Your task to perform on an android device: install app "Google Play services" Image 0: 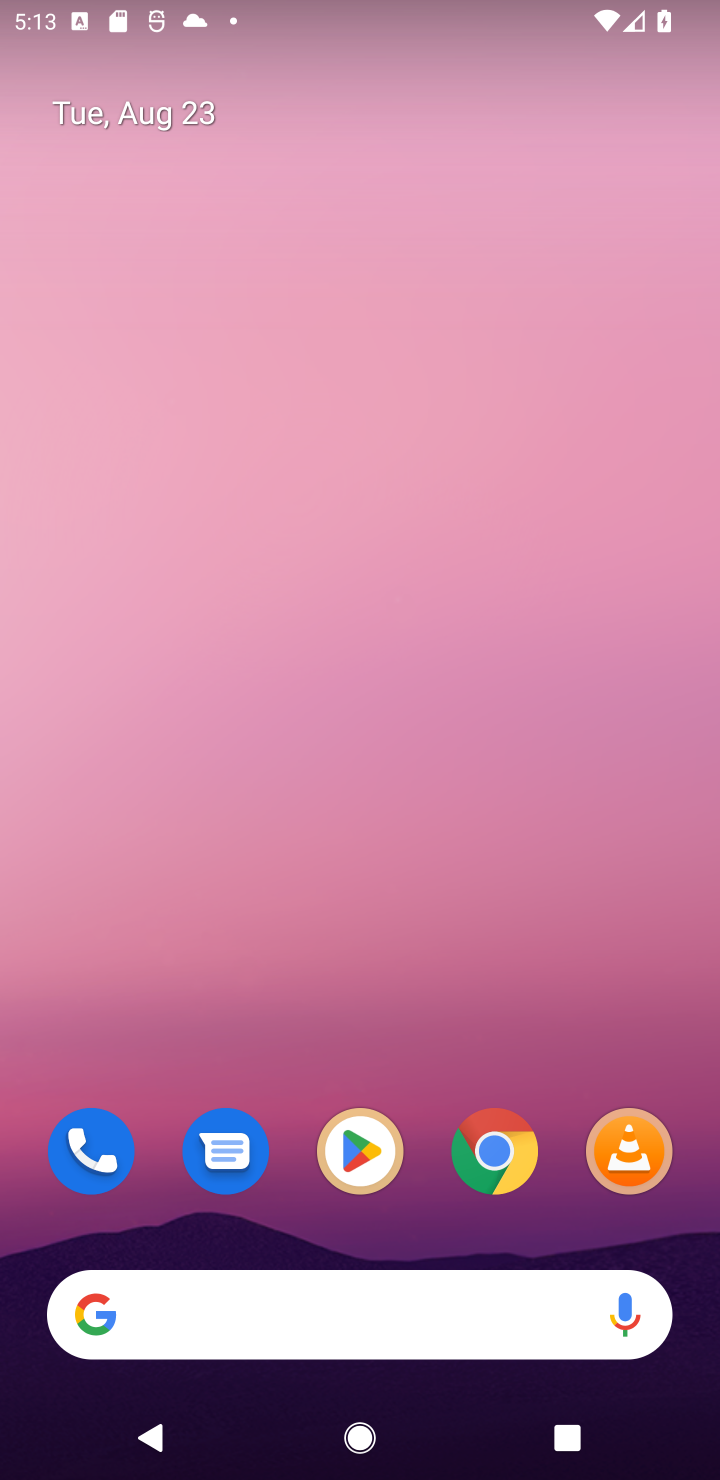
Step 0: click (370, 1158)
Your task to perform on an android device: install app "Google Play services" Image 1: 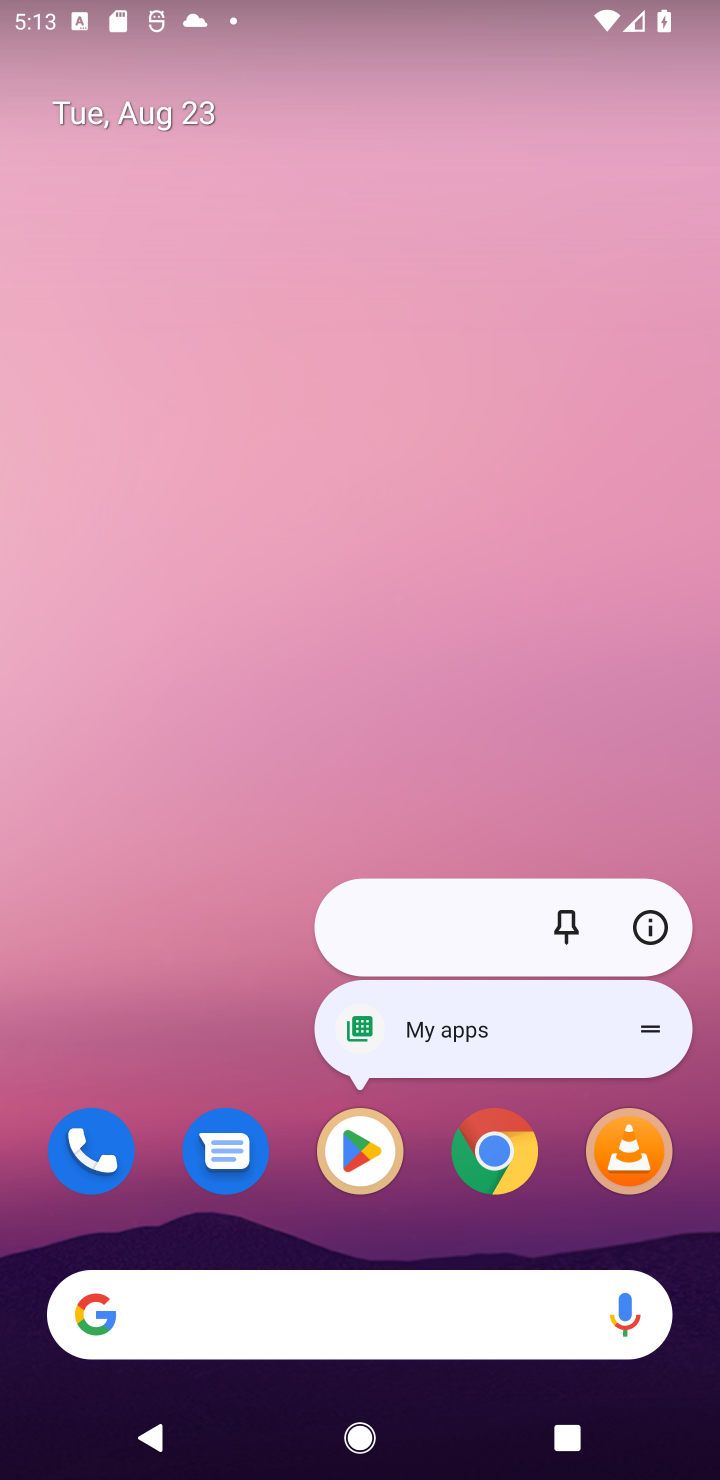
Step 1: click (359, 1158)
Your task to perform on an android device: install app "Google Play services" Image 2: 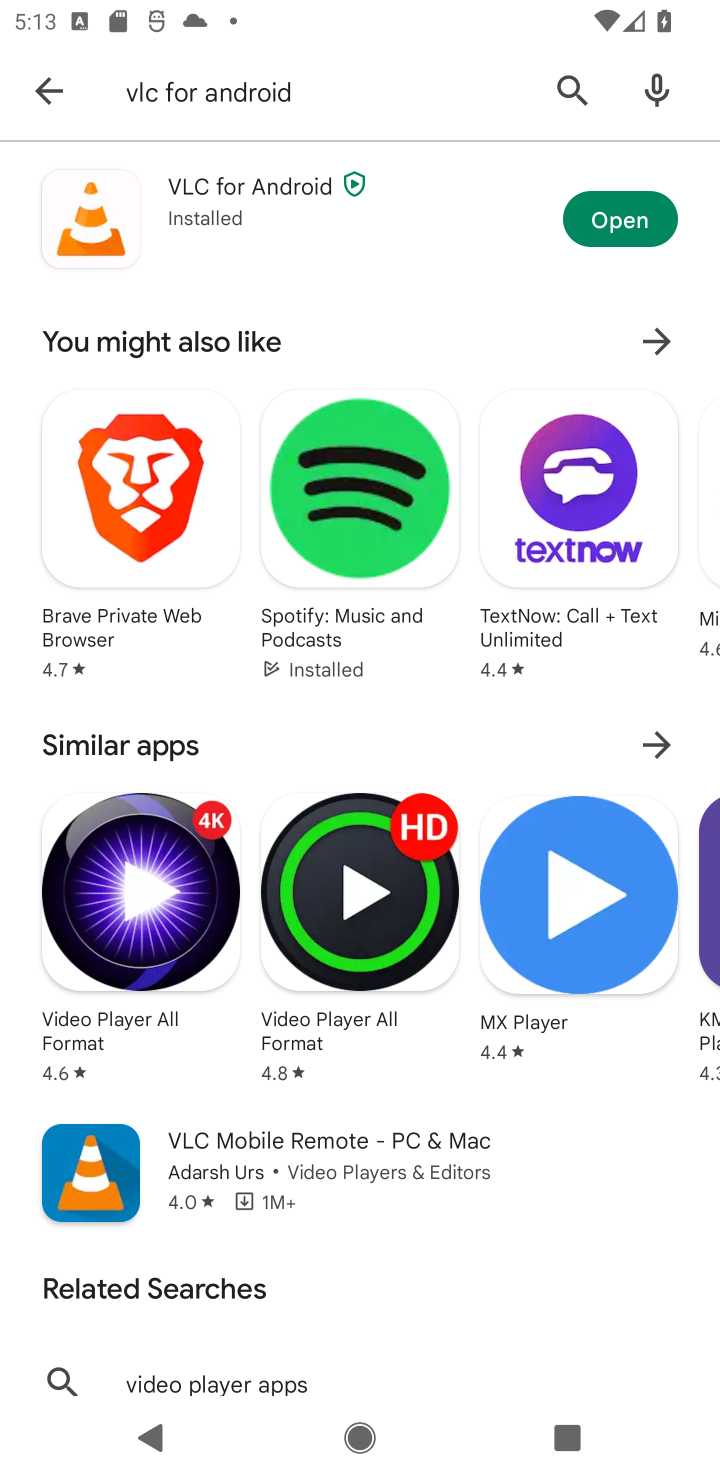
Step 2: click (568, 83)
Your task to perform on an android device: install app "Google Play services" Image 3: 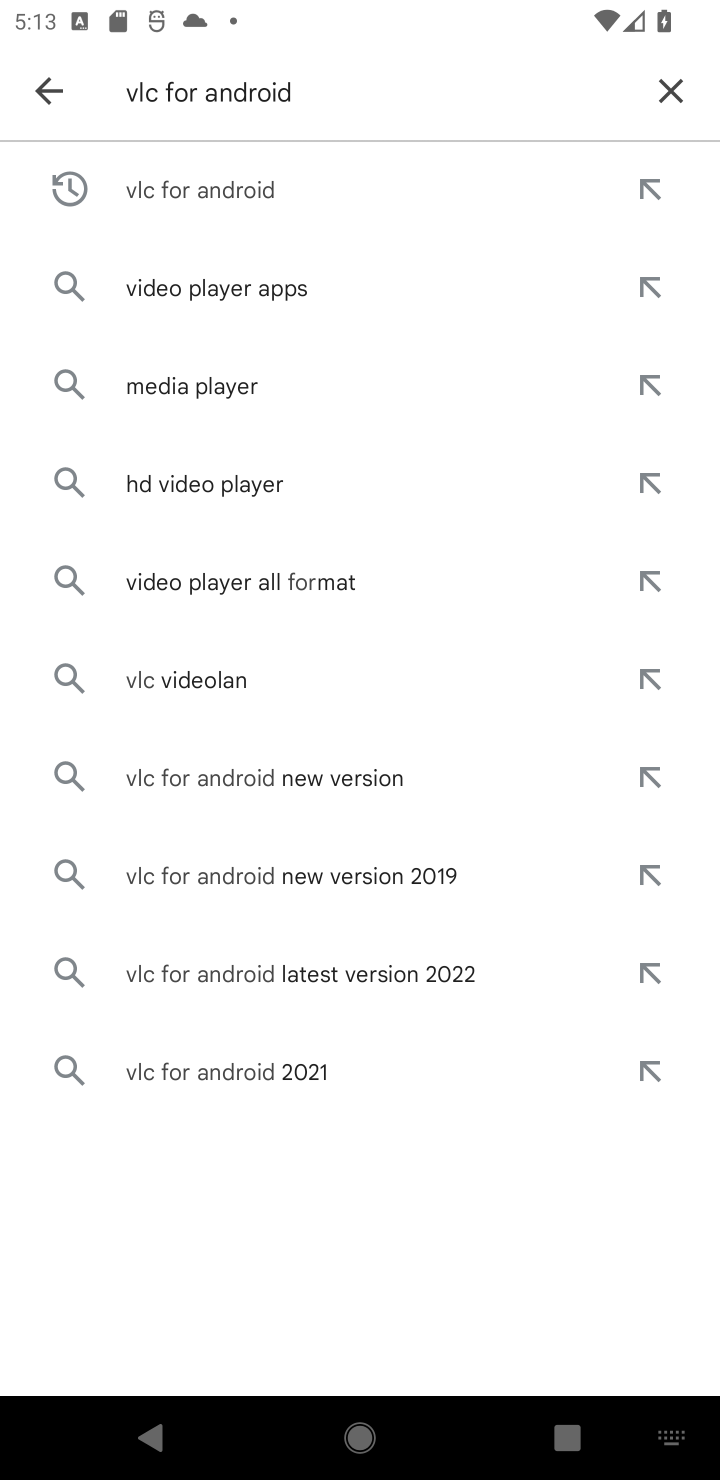
Step 3: click (660, 81)
Your task to perform on an android device: install app "Google Play services" Image 4: 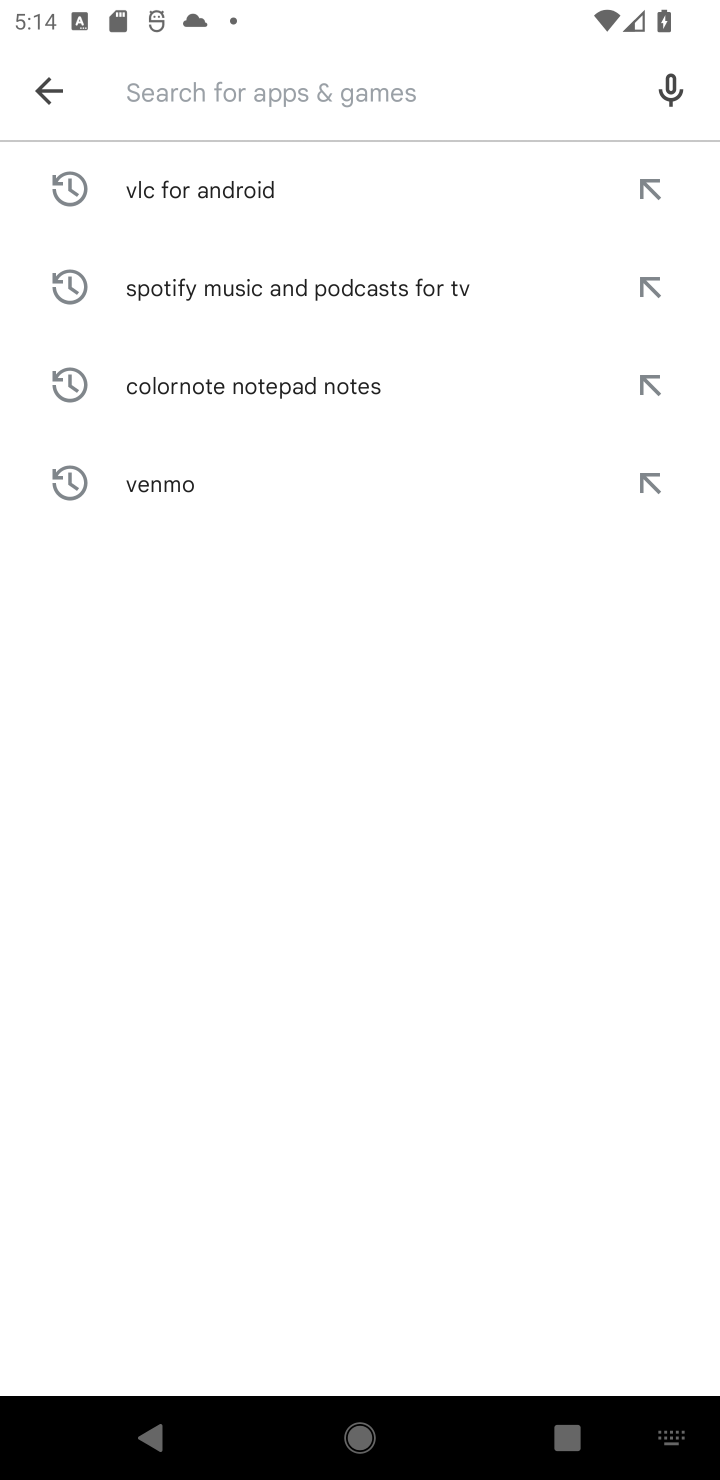
Step 4: type "Google Play services"
Your task to perform on an android device: install app "Google Play services" Image 5: 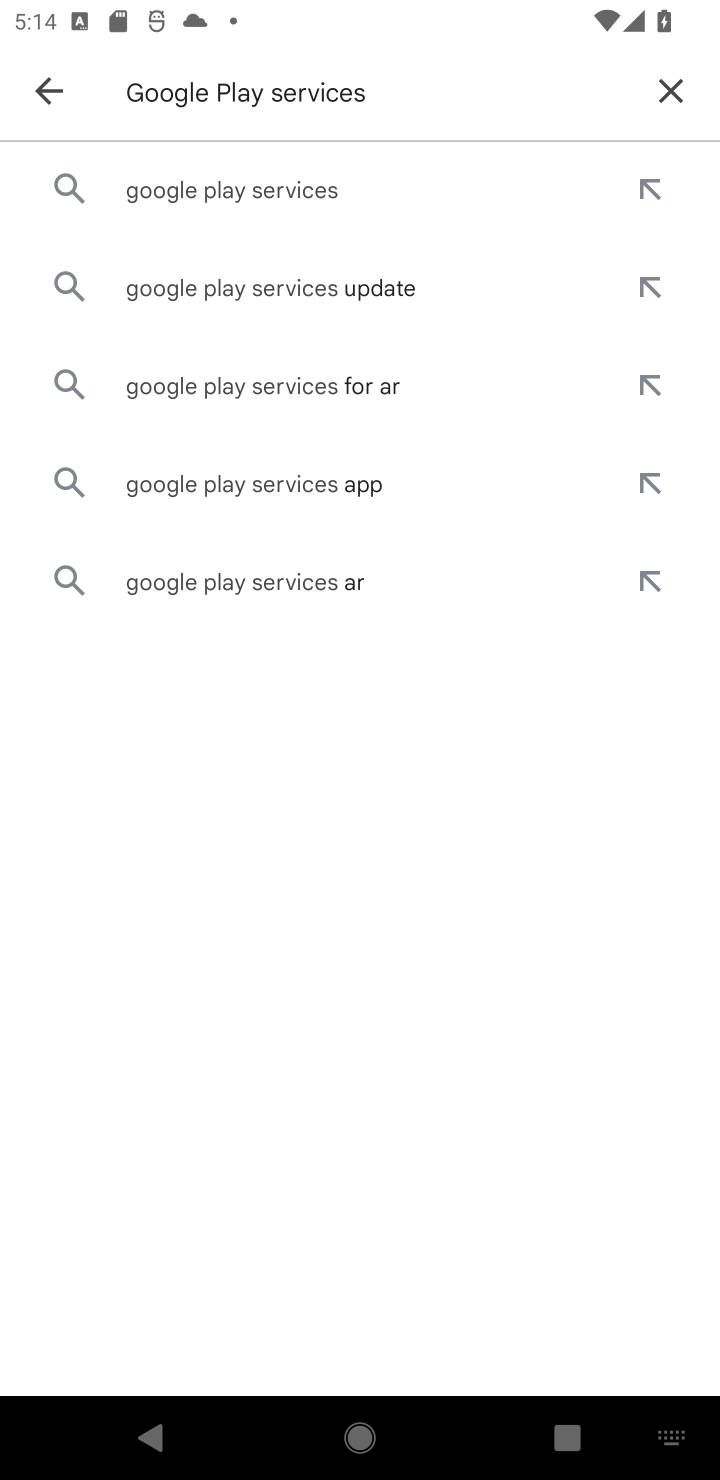
Step 5: click (312, 185)
Your task to perform on an android device: install app "Google Play services" Image 6: 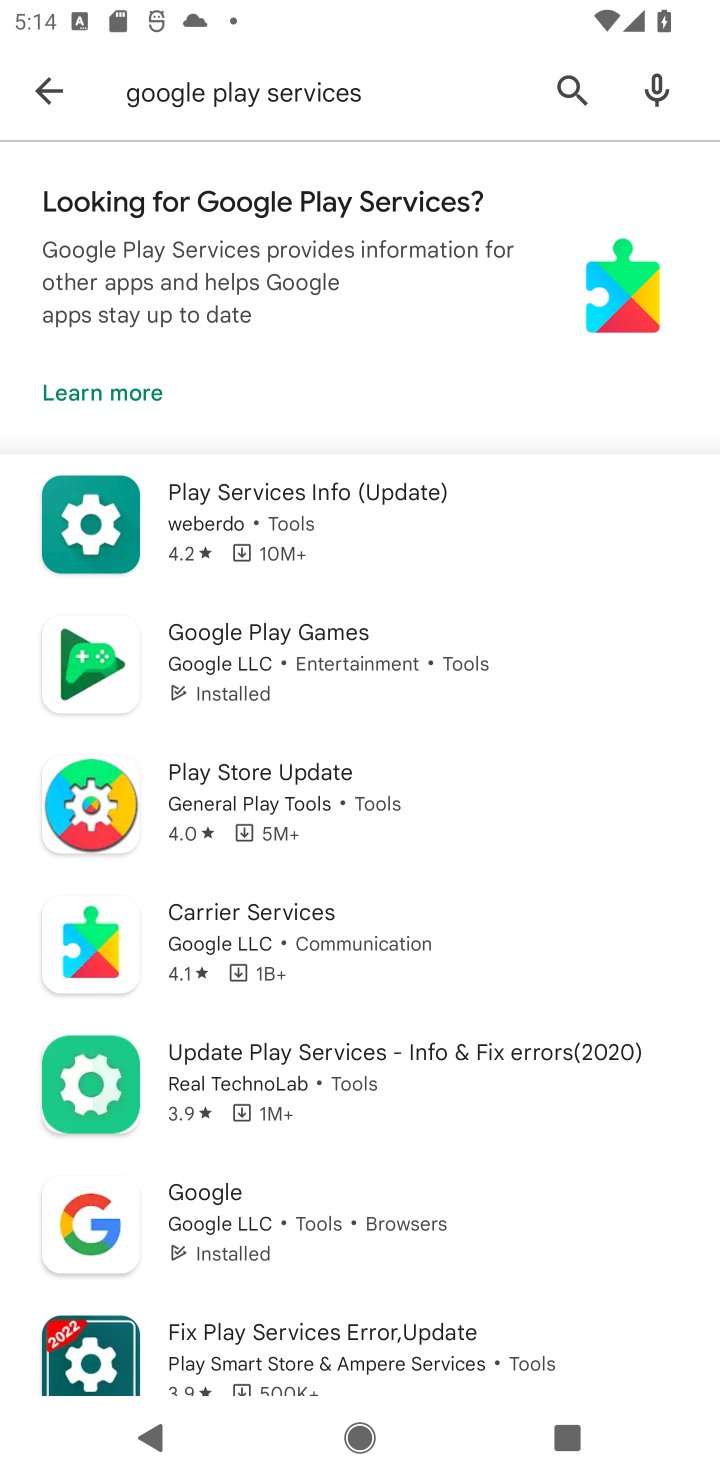
Step 6: task complete